Your task to perform on an android device: Open calendar and show me the third week of next month Image 0: 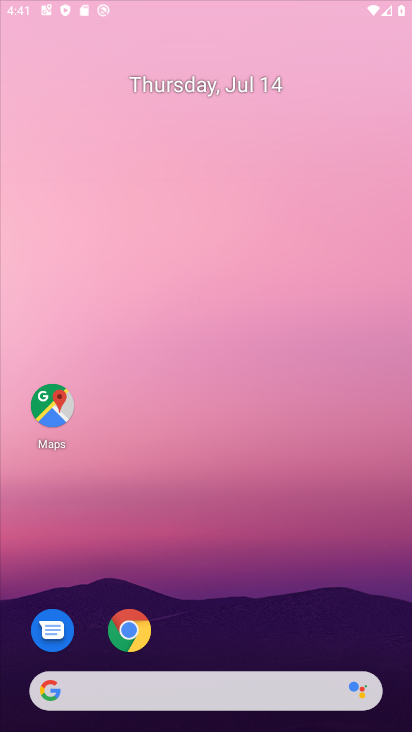
Step 0: drag from (264, 669) to (321, 15)
Your task to perform on an android device: Open calendar and show me the third week of next month Image 1: 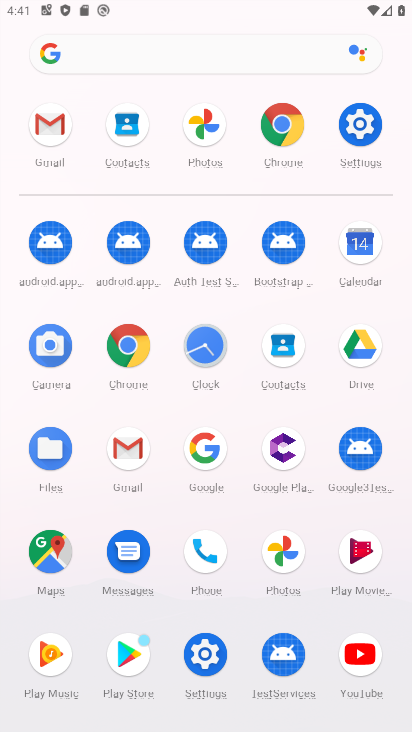
Step 1: click (366, 251)
Your task to perform on an android device: Open calendar and show me the third week of next month Image 2: 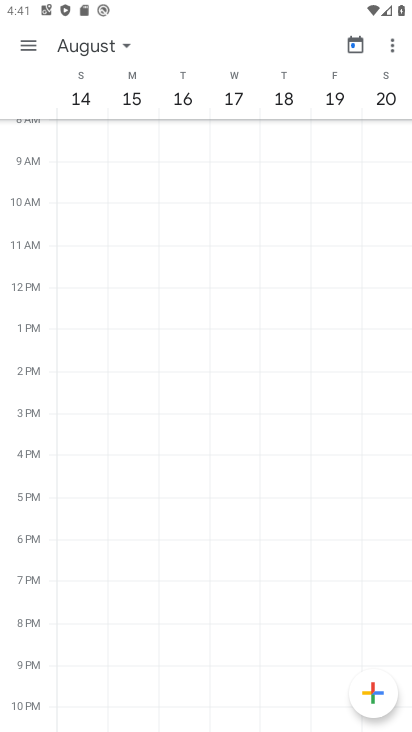
Step 2: click (118, 40)
Your task to perform on an android device: Open calendar and show me the third week of next month Image 3: 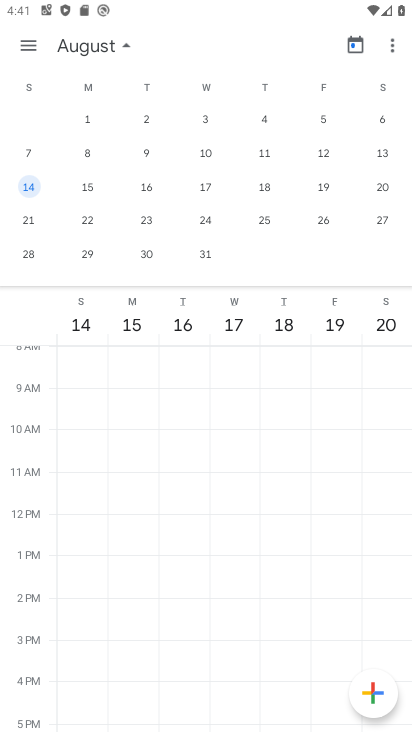
Step 3: drag from (370, 170) to (145, 182)
Your task to perform on an android device: Open calendar and show me the third week of next month Image 4: 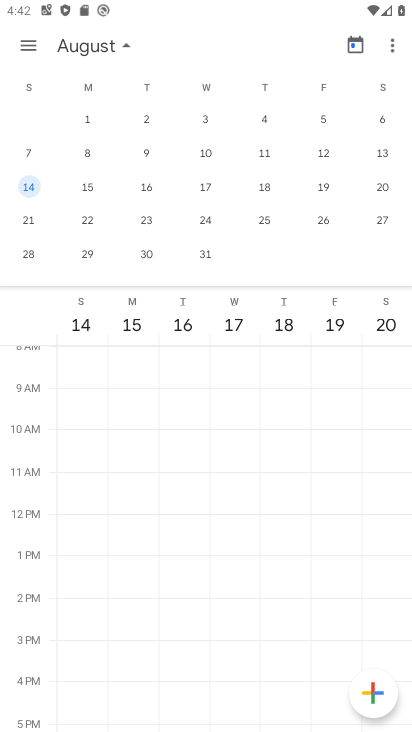
Step 4: click (210, 193)
Your task to perform on an android device: Open calendar and show me the third week of next month Image 5: 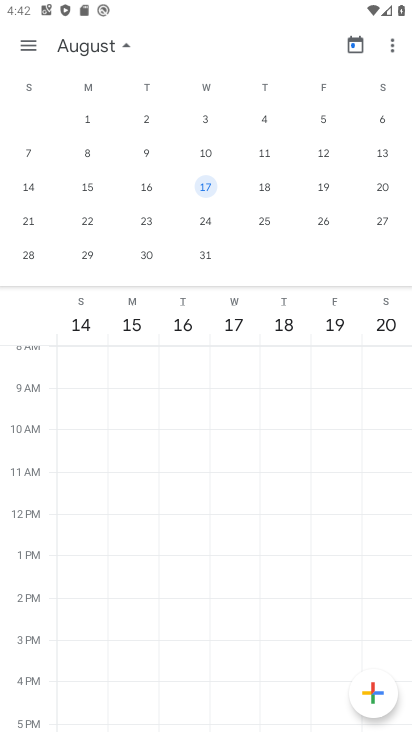
Step 5: task complete